Your task to perform on an android device: Go to accessibility settings Image 0: 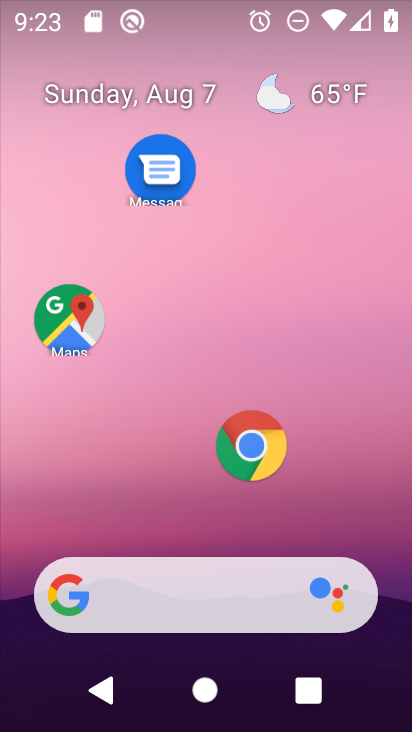
Step 0: press home button
Your task to perform on an android device: Go to accessibility settings Image 1: 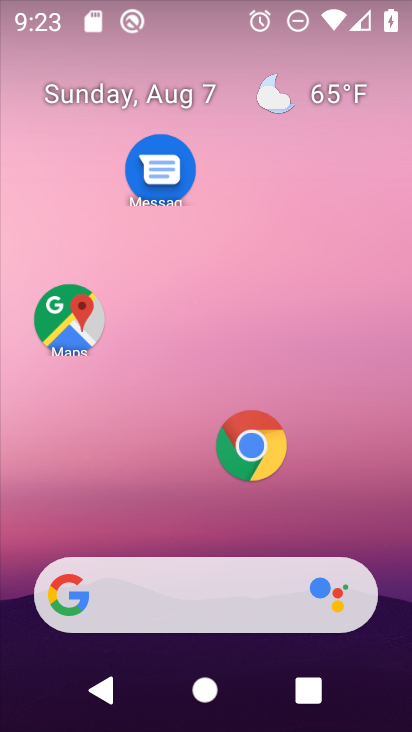
Step 1: drag from (201, 531) to (237, 114)
Your task to perform on an android device: Go to accessibility settings Image 2: 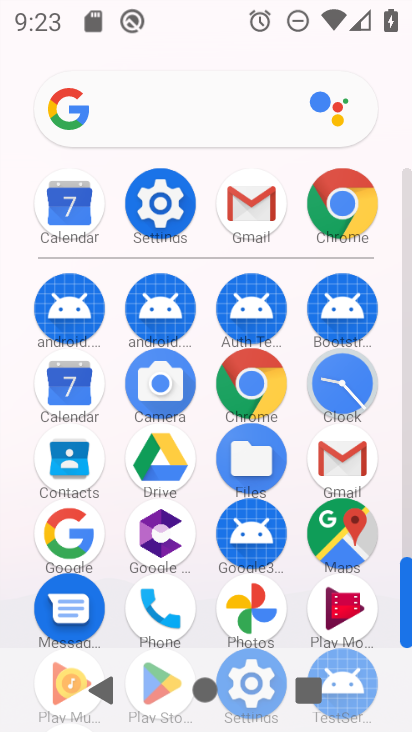
Step 2: click (158, 198)
Your task to perform on an android device: Go to accessibility settings Image 3: 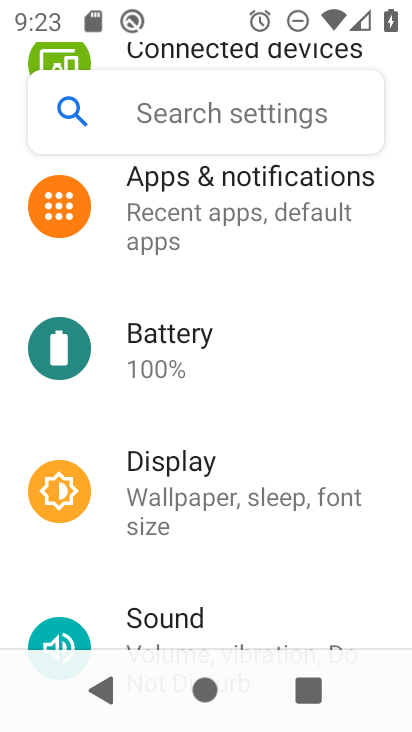
Step 3: drag from (239, 602) to (267, 201)
Your task to perform on an android device: Go to accessibility settings Image 4: 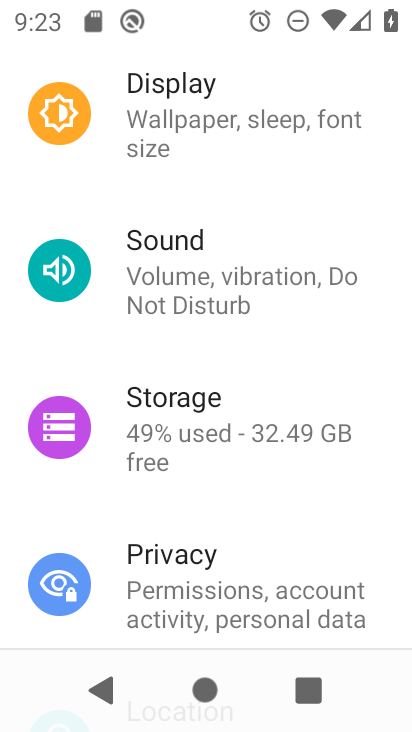
Step 4: drag from (234, 594) to (233, 146)
Your task to perform on an android device: Go to accessibility settings Image 5: 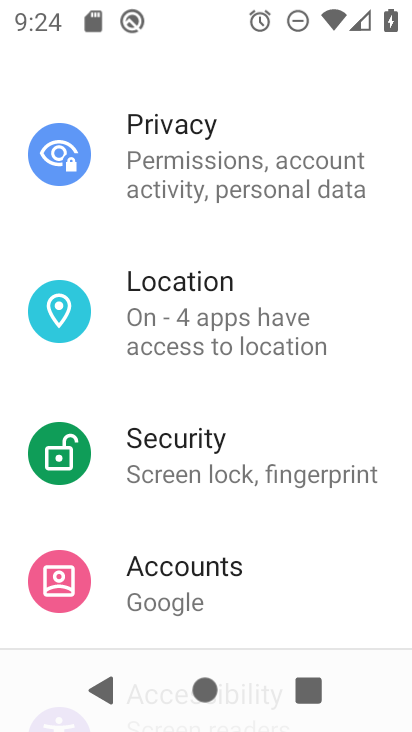
Step 5: drag from (230, 601) to (243, 86)
Your task to perform on an android device: Go to accessibility settings Image 6: 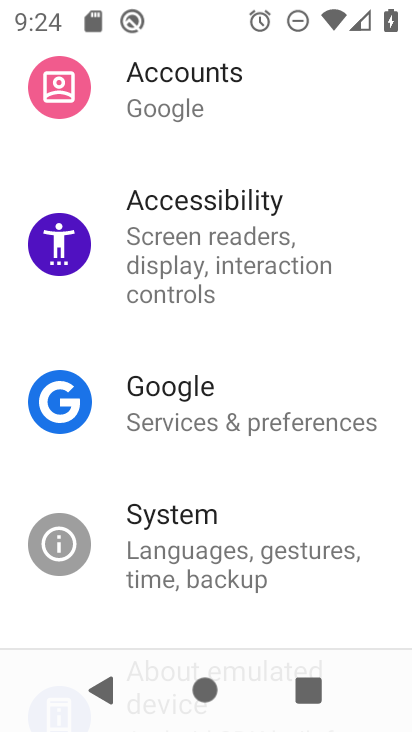
Step 6: click (317, 213)
Your task to perform on an android device: Go to accessibility settings Image 7: 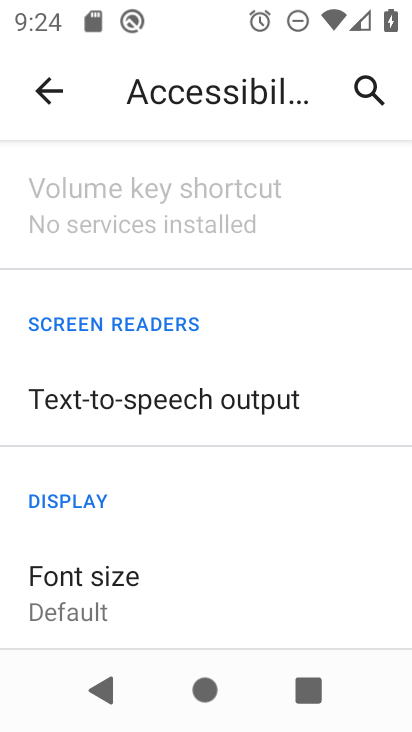
Step 7: task complete